Your task to perform on an android device: Open my contact list Image 0: 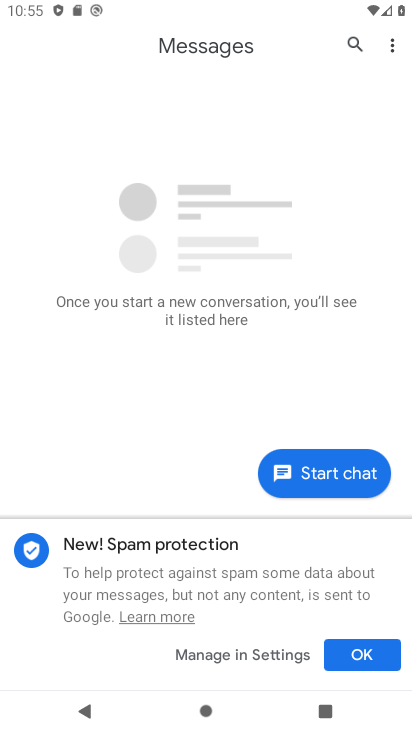
Step 0: press home button
Your task to perform on an android device: Open my contact list Image 1: 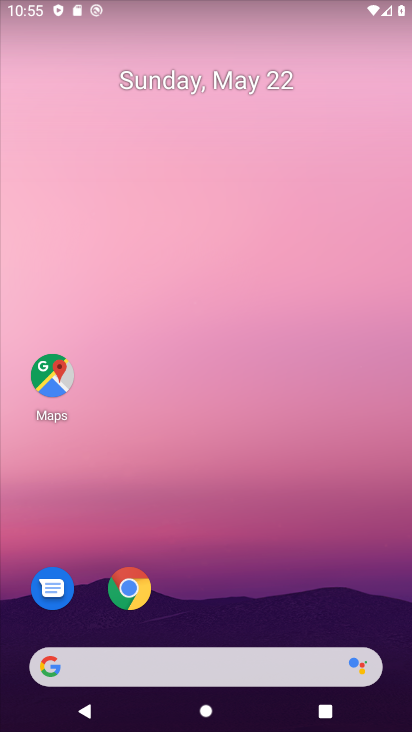
Step 1: drag from (221, 602) to (234, 160)
Your task to perform on an android device: Open my contact list Image 2: 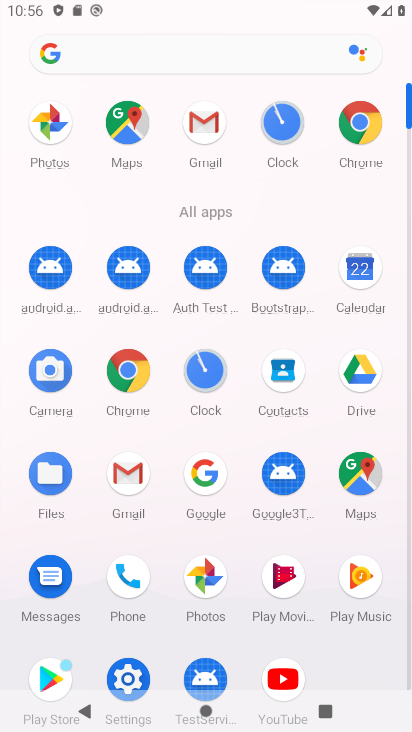
Step 2: click (271, 370)
Your task to perform on an android device: Open my contact list Image 3: 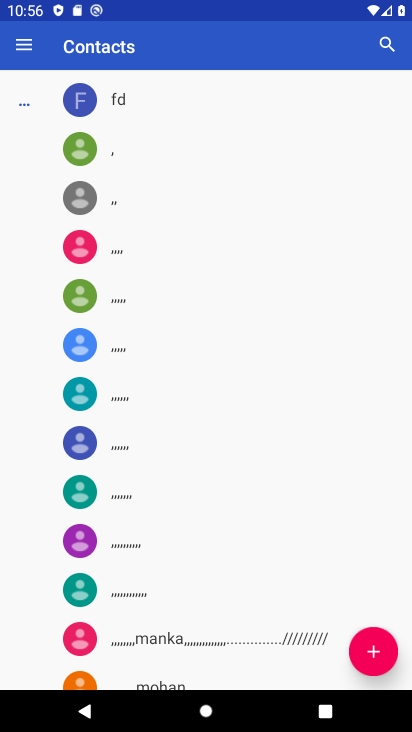
Step 3: task complete